Your task to perform on an android device: Go to location settings Image 0: 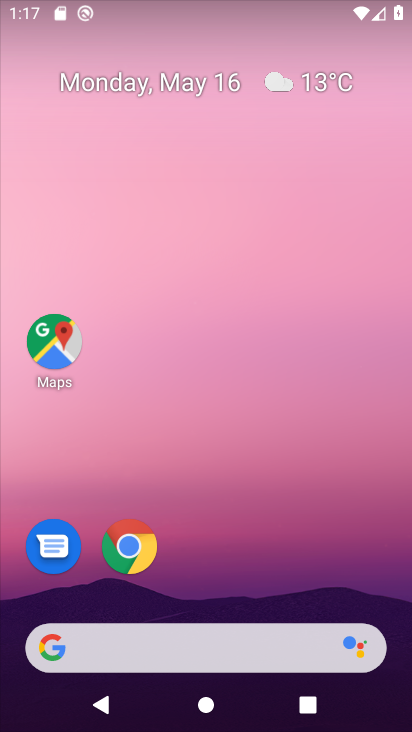
Step 0: drag from (223, 725) to (222, 159)
Your task to perform on an android device: Go to location settings Image 1: 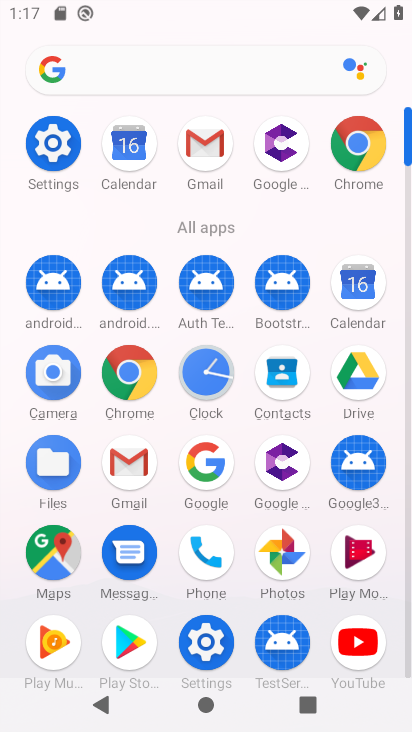
Step 1: click (52, 131)
Your task to perform on an android device: Go to location settings Image 2: 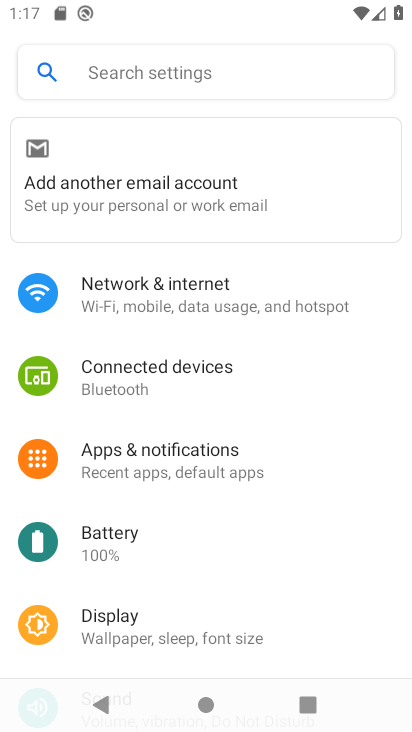
Step 2: drag from (169, 559) to (168, 219)
Your task to perform on an android device: Go to location settings Image 3: 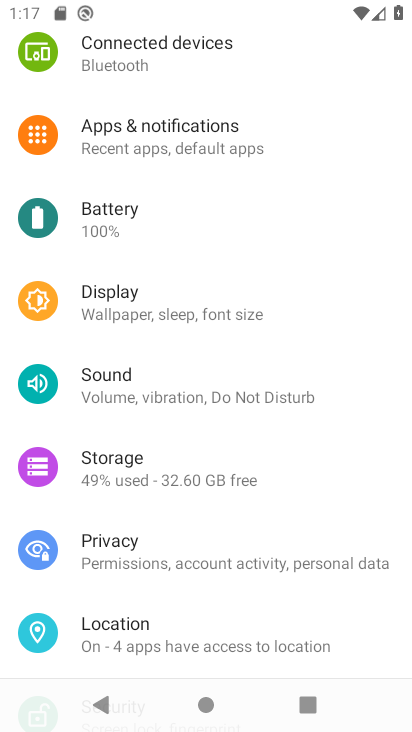
Step 3: click (130, 626)
Your task to perform on an android device: Go to location settings Image 4: 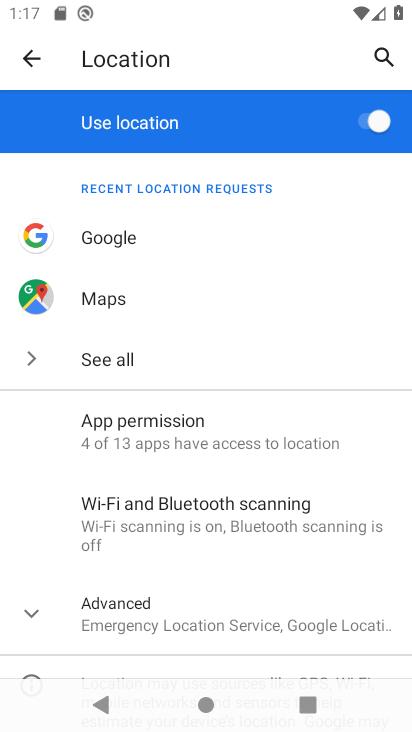
Step 4: task complete